Your task to perform on an android device: set an alarm Image 0: 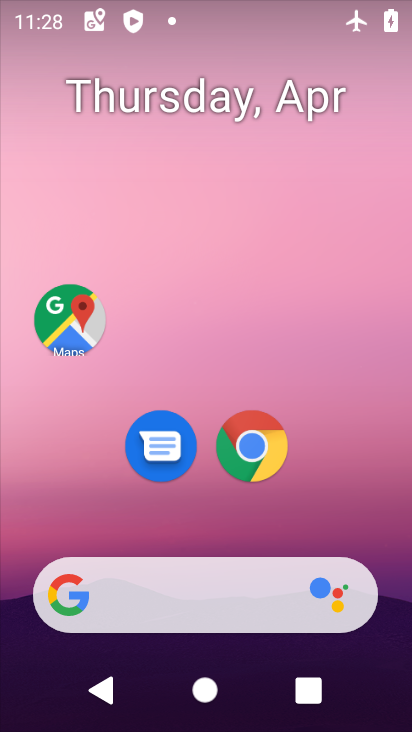
Step 0: drag from (397, 574) to (293, 236)
Your task to perform on an android device: set an alarm Image 1: 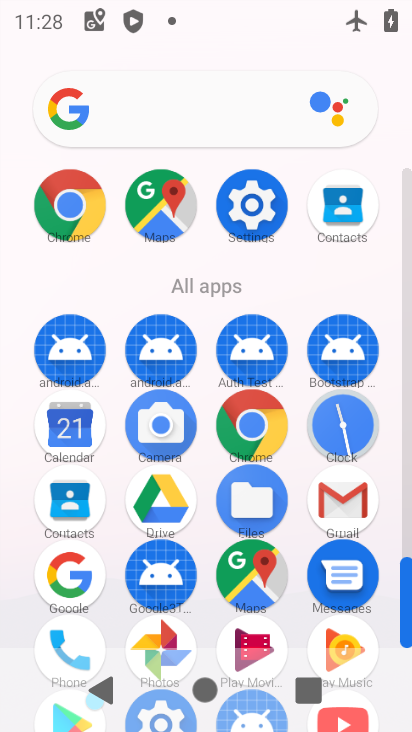
Step 1: click (349, 428)
Your task to perform on an android device: set an alarm Image 2: 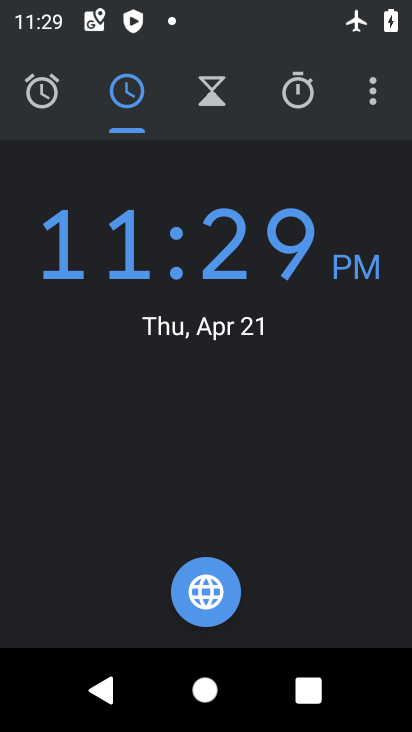
Step 2: click (52, 103)
Your task to perform on an android device: set an alarm Image 3: 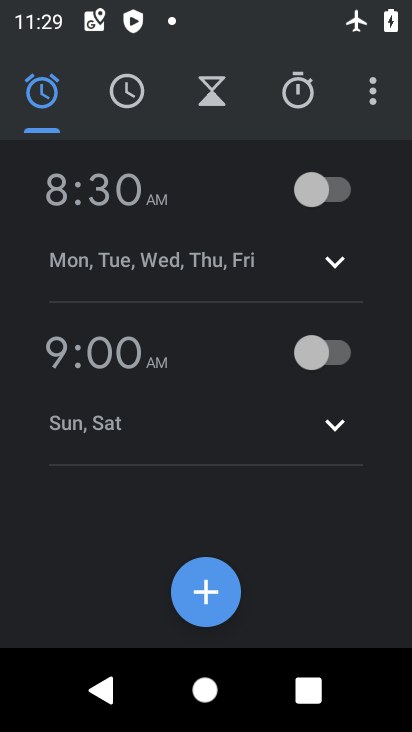
Step 3: click (225, 582)
Your task to perform on an android device: set an alarm Image 4: 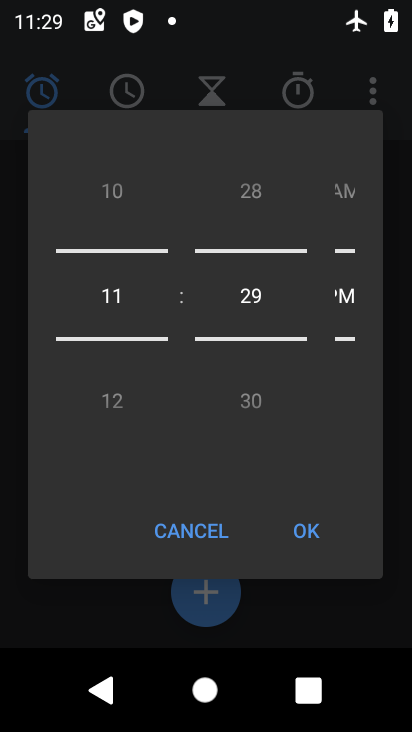
Step 4: click (314, 541)
Your task to perform on an android device: set an alarm Image 5: 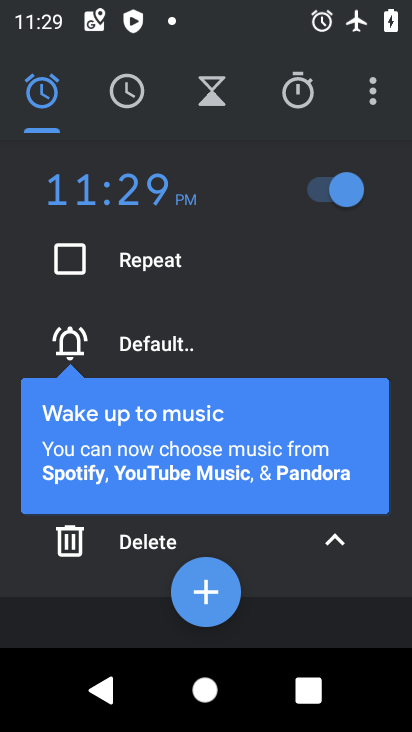
Step 5: task complete